Your task to perform on an android device: toggle javascript in the chrome app Image 0: 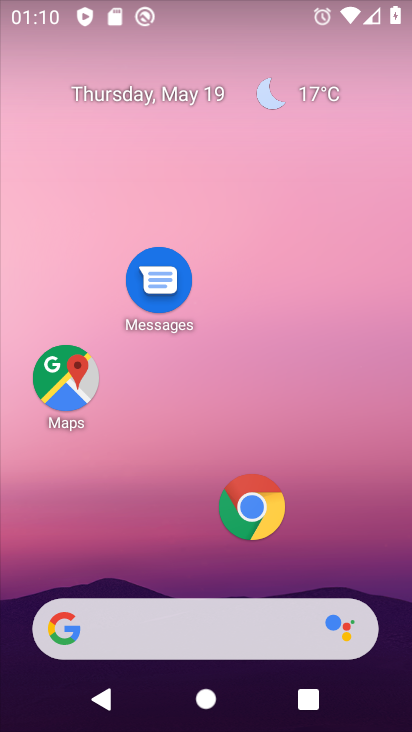
Step 0: click (242, 509)
Your task to perform on an android device: toggle javascript in the chrome app Image 1: 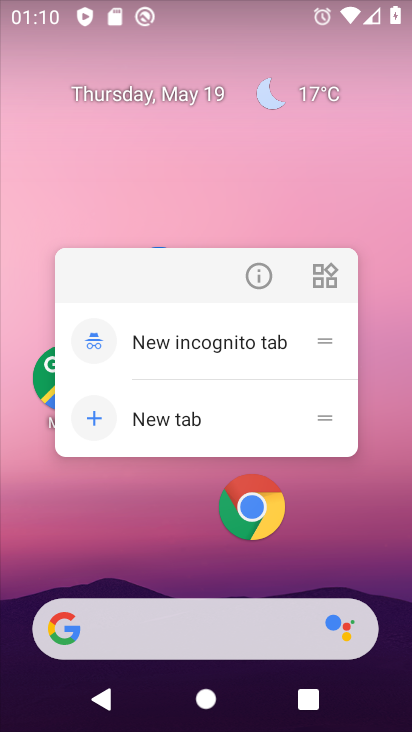
Step 1: click (242, 509)
Your task to perform on an android device: toggle javascript in the chrome app Image 2: 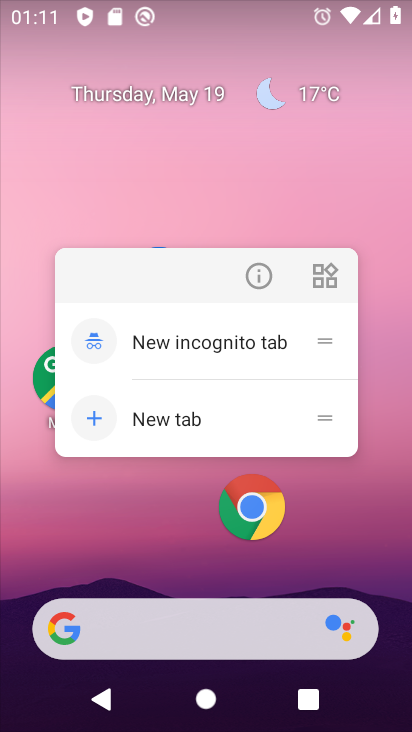
Step 2: click (253, 516)
Your task to perform on an android device: toggle javascript in the chrome app Image 3: 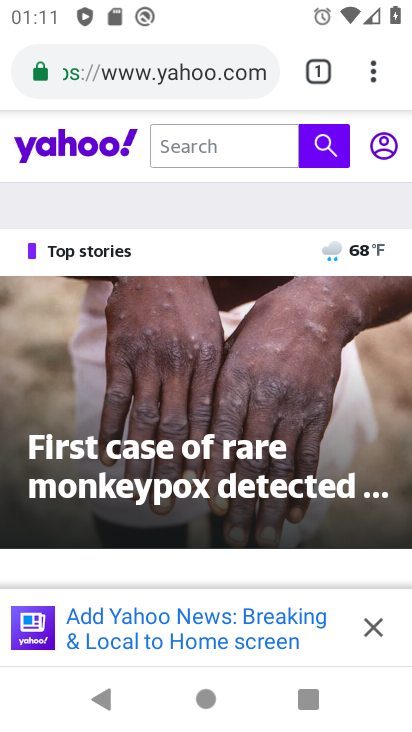
Step 3: click (377, 71)
Your task to perform on an android device: toggle javascript in the chrome app Image 4: 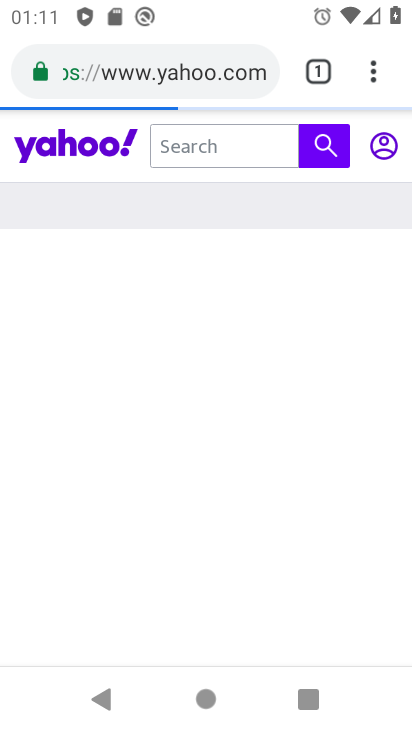
Step 4: click (377, 71)
Your task to perform on an android device: toggle javascript in the chrome app Image 5: 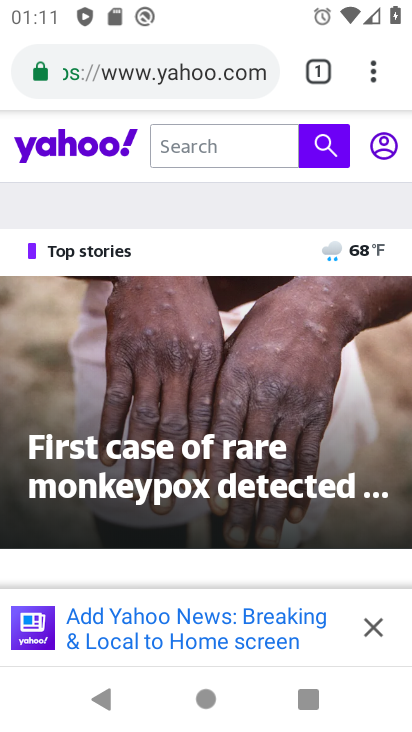
Step 5: click (374, 74)
Your task to perform on an android device: toggle javascript in the chrome app Image 6: 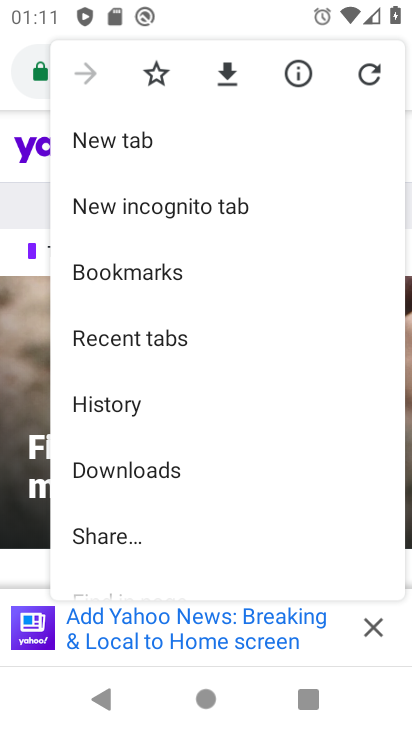
Step 6: drag from (192, 514) to (225, 201)
Your task to perform on an android device: toggle javascript in the chrome app Image 7: 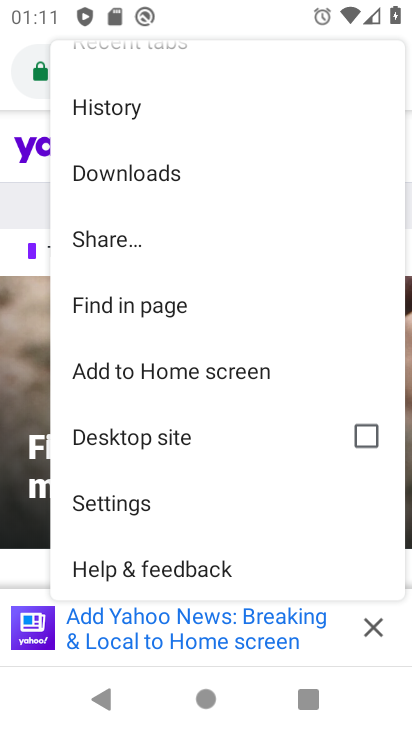
Step 7: click (128, 504)
Your task to perform on an android device: toggle javascript in the chrome app Image 8: 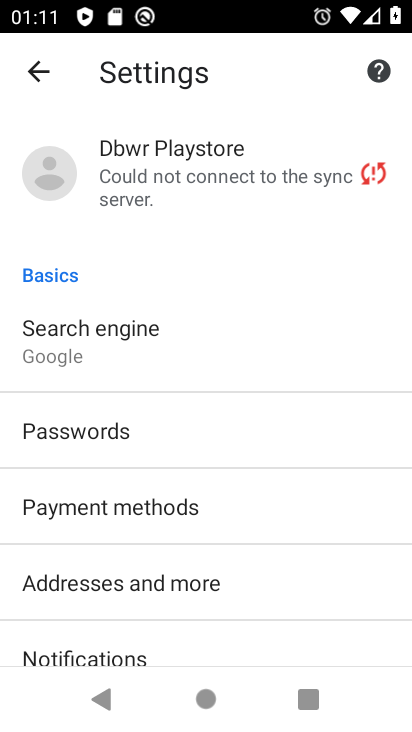
Step 8: drag from (136, 665) to (186, 288)
Your task to perform on an android device: toggle javascript in the chrome app Image 9: 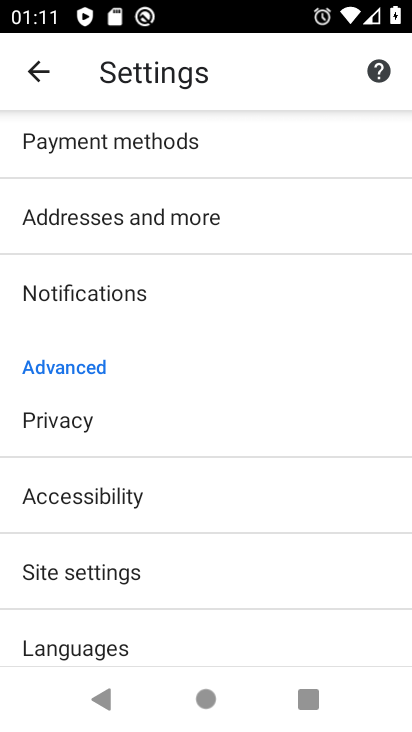
Step 9: click (101, 571)
Your task to perform on an android device: toggle javascript in the chrome app Image 10: 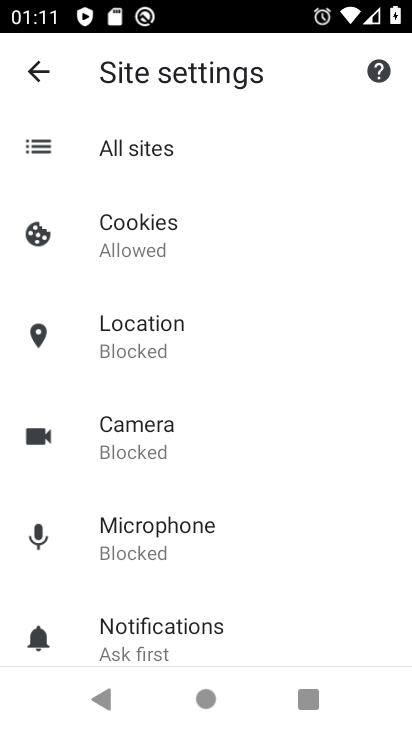
Step 10: drag from (147, 636) to (199, 330)
Your task to perform on an android device: toggle javascript in the chrome app Image 11: 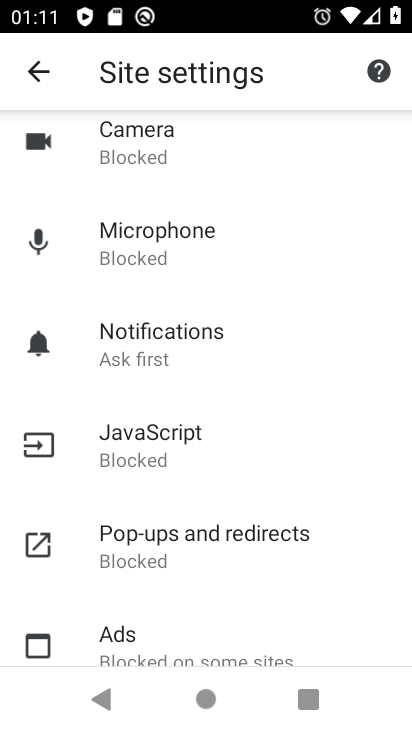
Step 11: click (185, 448)
Your task to perform on an android device: toggle javascript in the chrome app Image 12: 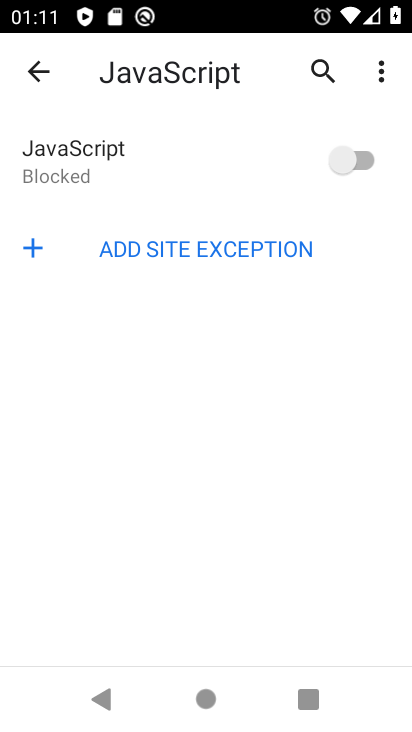
Step 12: click (353, 156)
Your task to perform on an android device: toggle javascript in the chrome app Image 13: 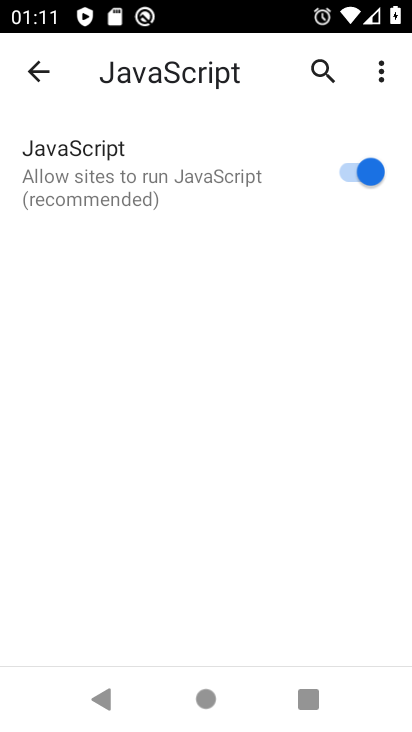
Step 13: task complete